Your task to perform on an android device: toggle location history Image 0: 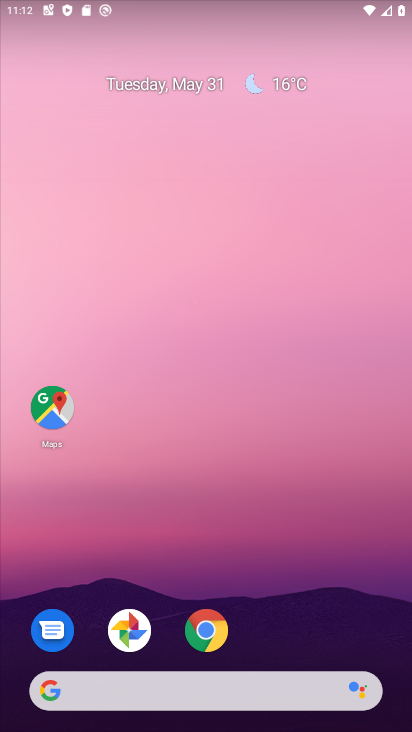
Step 0: drag from (265, 434) to (275, 261)
Your task to perform on an android device: toggle location history Image 1: 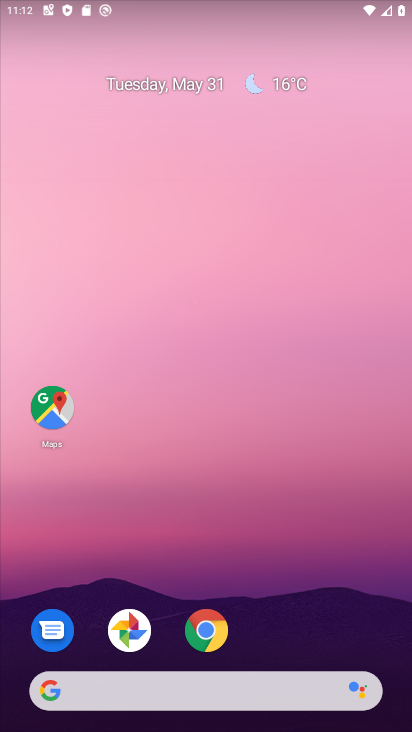
Step 1: drag from (245, 623) to (271, 193)
Your task to perform on an android device: toggle location history Image 2: 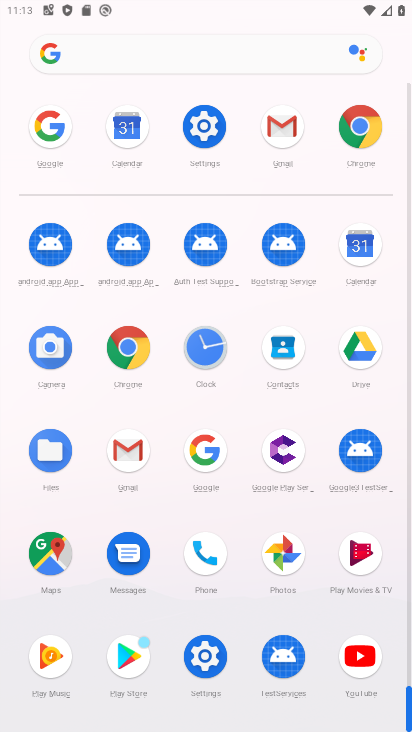
Step 2: click (206, 114)
Your task to perform on an android device: toggle location history Image 3: 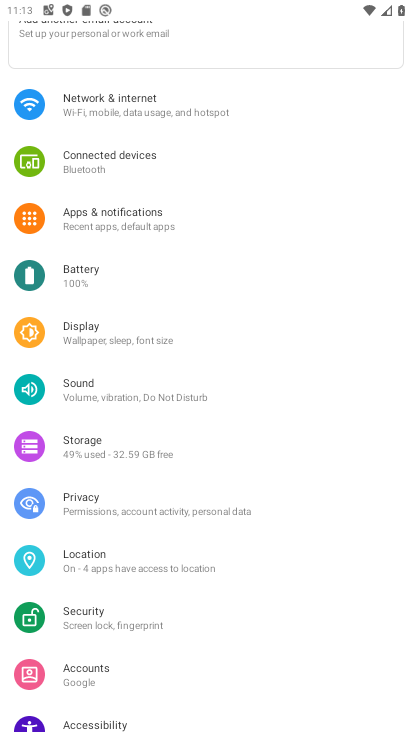
Step 3: click (121, 573)
Your task to perform on an android device: toggle location history Image 4: 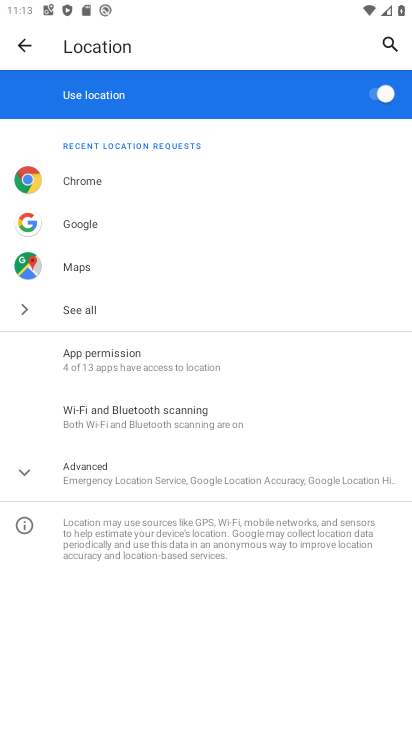
Step 4: click (182, 363)
Your task to perform on an android device: toggle location history Image 5: 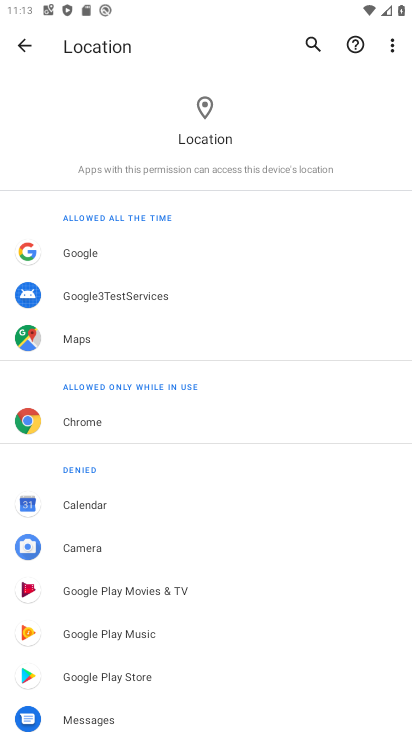
Step 5: click (25, 37)
Your task to perform on an android device: toggle location history Image 6: 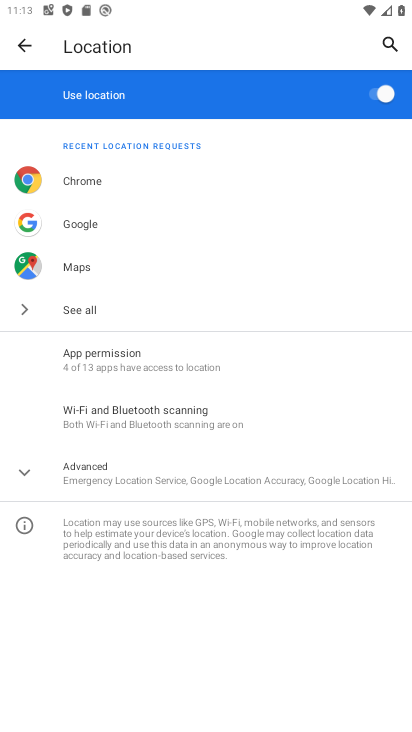
Step 6: click (167, 467)
Your task to perform on an android device: toggle location history Image 7: 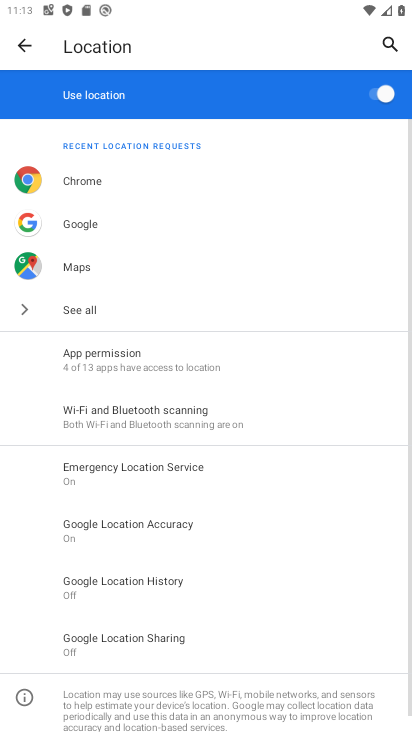
Step 7: drag from (188, 607) to (185, 562)
Your task to perform on an android device: toggle location history Image 8: 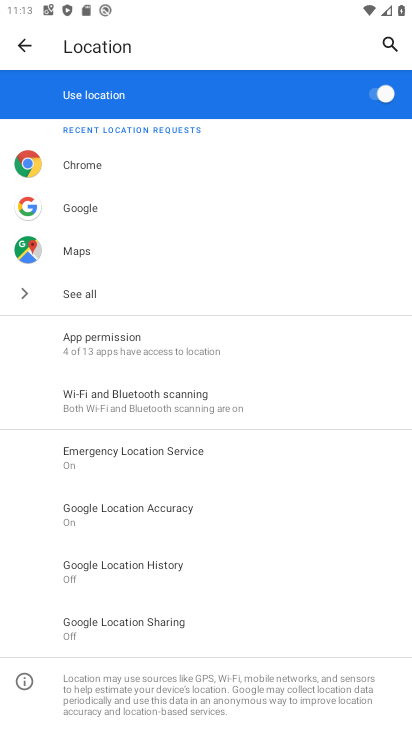
Step 8: click (146, 561)
Your task to perform on an android device: toggle location history Image 9: 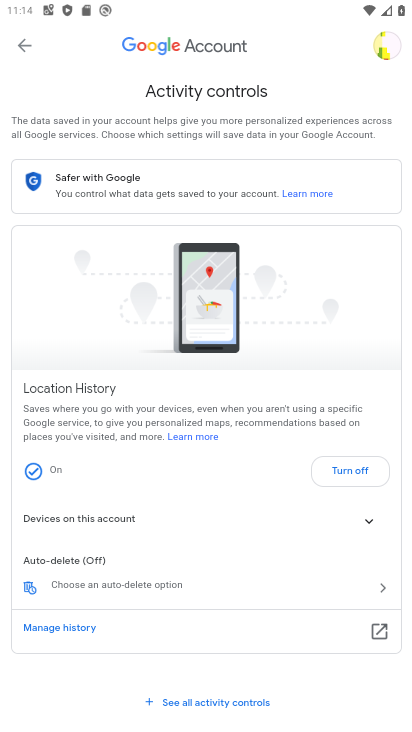
Step 9: click (45, 468)
Your task to perform on an android device: toggle location history Image 10: 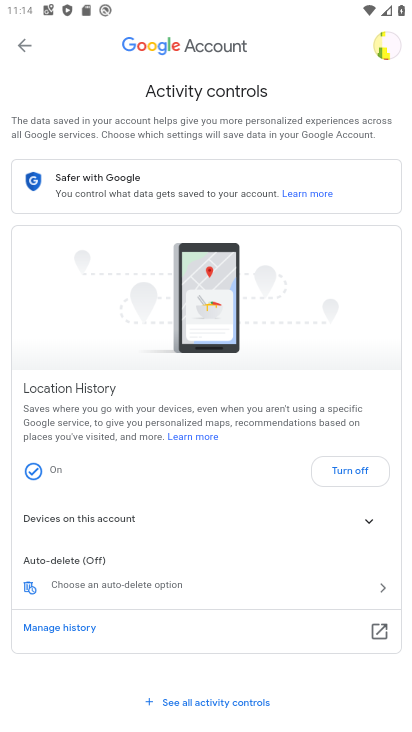
Step 10: click (346, 470)
Your task to perform on an android device: toggle location history Image 11: 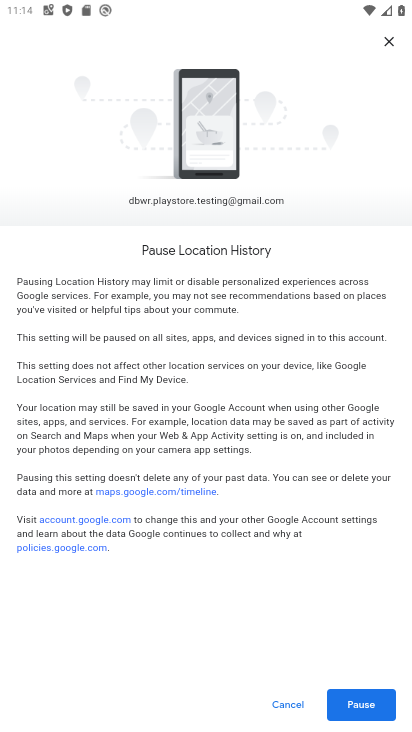
Step 11: click (351, 699)
Your task to perform on an android device: toggle location history Image 12: 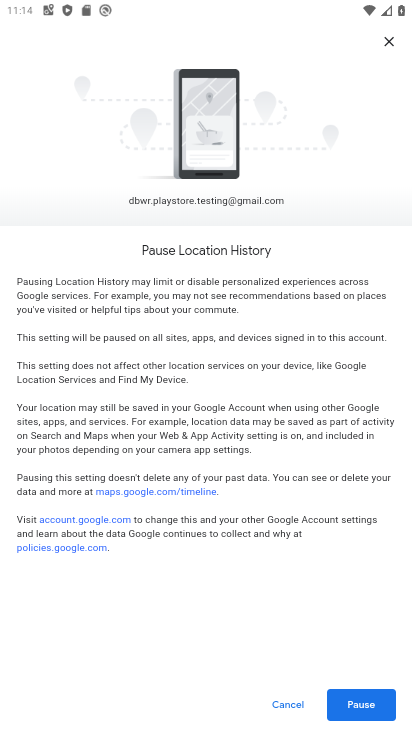
Step 12: task complete